Your task to perform on an android device: clear history in the chrome app Image 0: 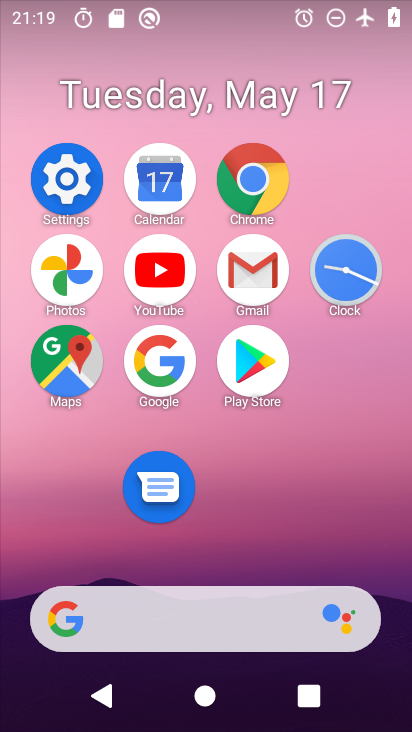
Step 0: click (228, 167)
Your task to perform on an android device: clear history in the chrome app Image 1: 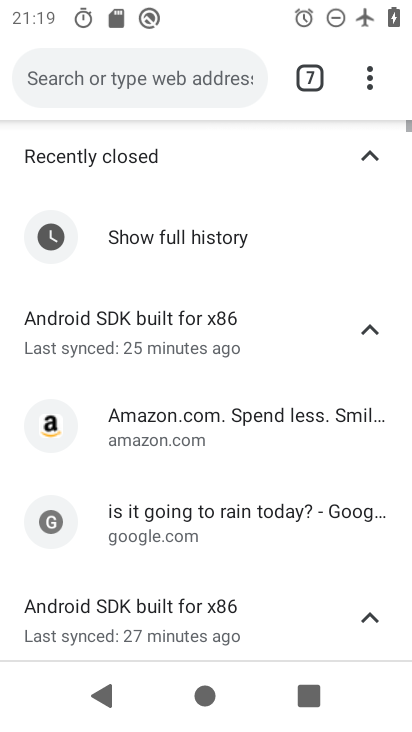
Step 1: click (382, 75)
Your task to perform on an android device: clear history in the chrome app Image 2: 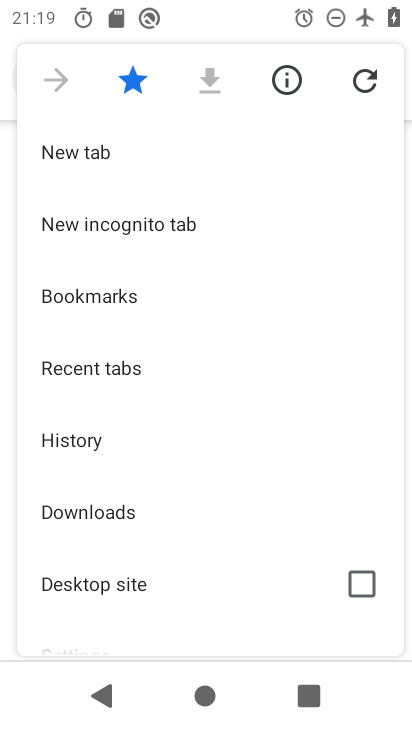
Step 2: click (79, 433)
Your task to perform on an android device: clear history in the chrome app Image 3: 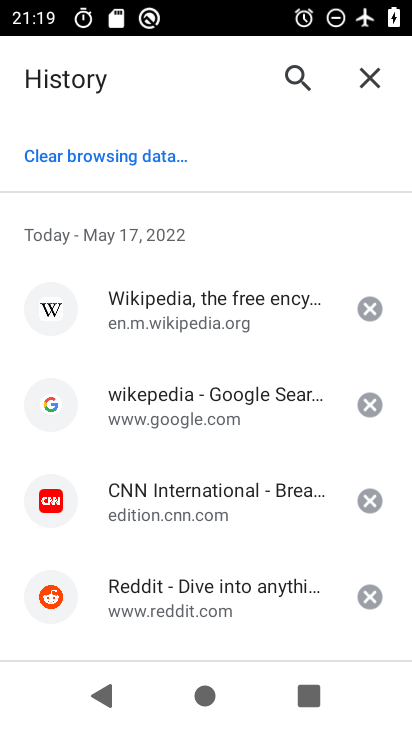
Step 3: click (107, 170)
Your task to perform on an android device: clear history in the chrome app Image 4: 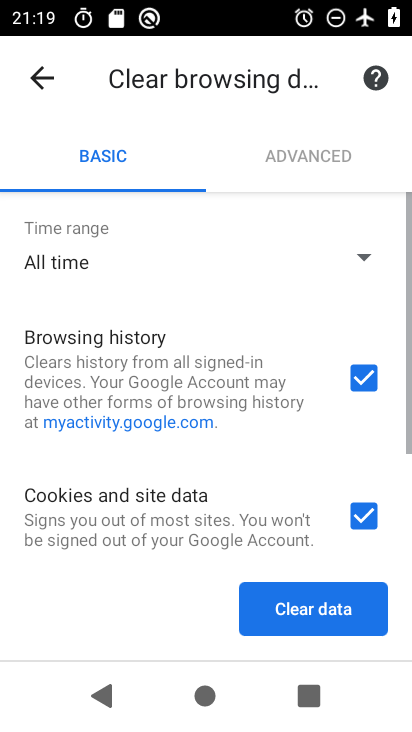
Step 4: click (308, 601)
Your task to perform on an android device: clear history in the chrome app Image 5: 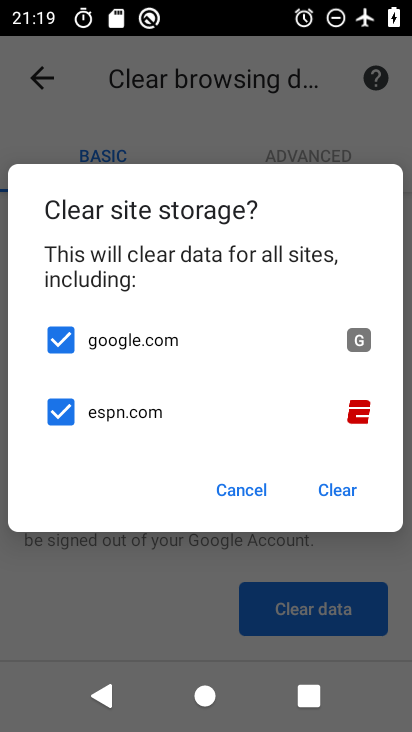
Step 5: click (354, 490)
Your task to perform on an android device: clear history in the chrome app Image 6: 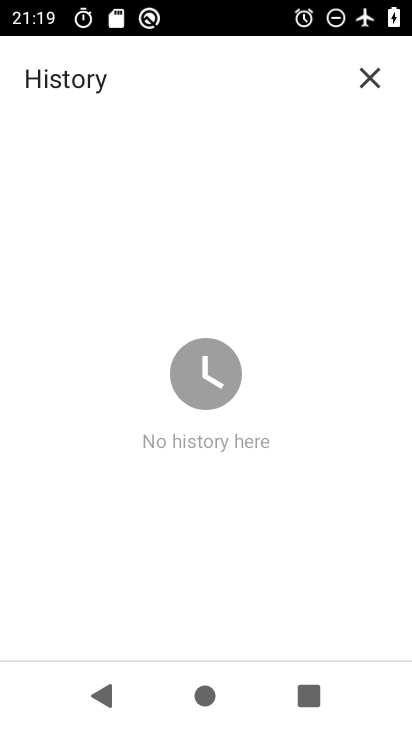
Step 6: task complete